Your task to perform on an android device: Search for vegetarian restaurants on Maps Image 0: 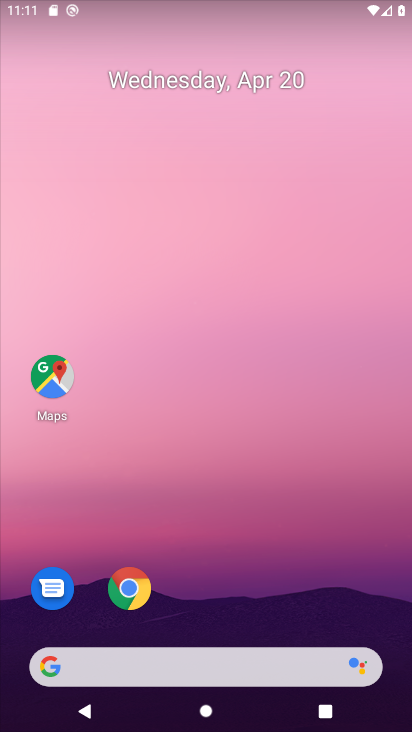
Step 0: click (62, 390)
Your task to perform on an android device: Search for vegetarian restaurants on Maps Image 1: 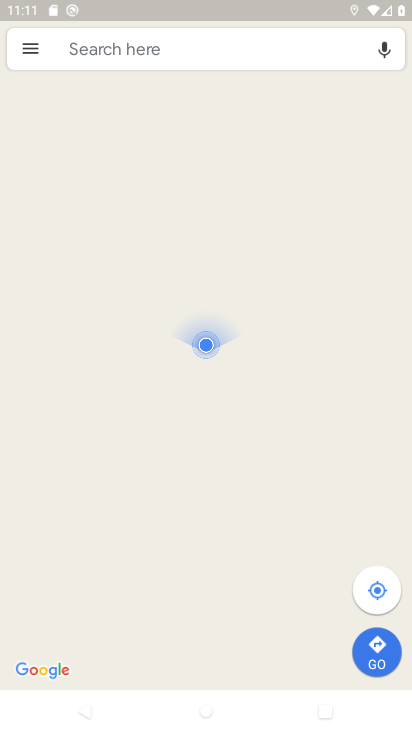
Step 1: click (131, 41)
Your task to perform on an android device: Search for vegetarian restaurants on Maps Image 2: 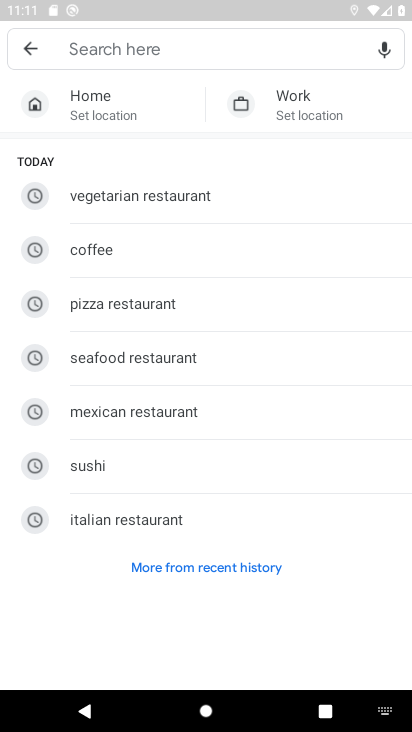
Step 2: click (169, 201)
Your task to perform on an android device: Search for vegetarian restaurants on Maps Image 3: 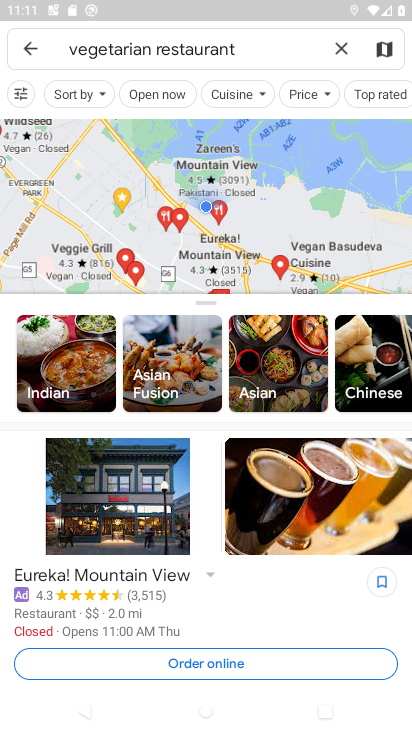
Step 3: task complete